Your task to perform on an android device: refresh tabs in the chrome app Image 0: 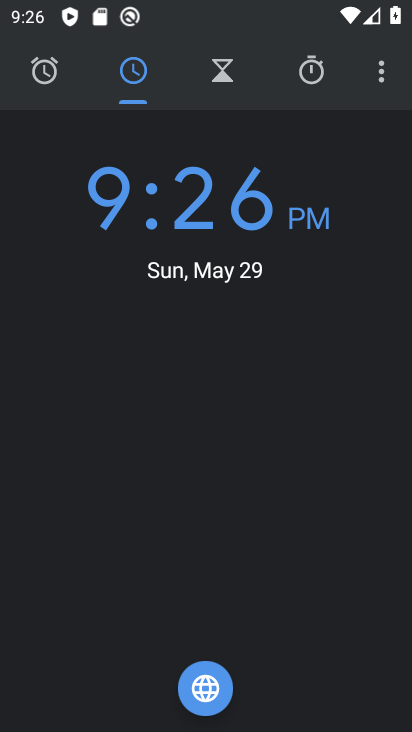
Step 0: press home button
Your task to perform on an android device: refresh tabs in the chrome app Image 1: 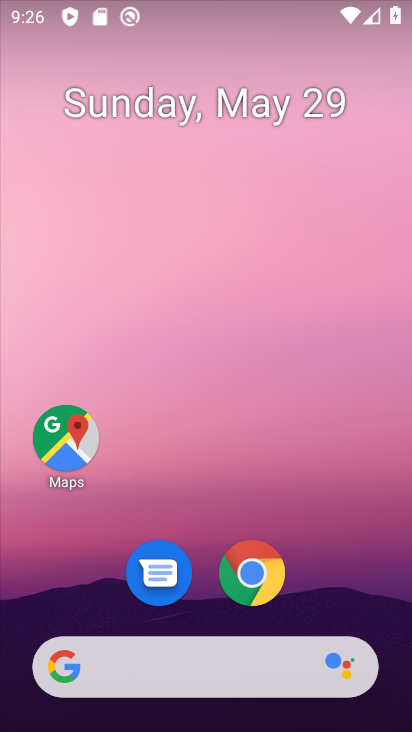
Step 1: click (272, 587)
Your task to perform on an android device: refresh tabs in the chrome app Image 2: 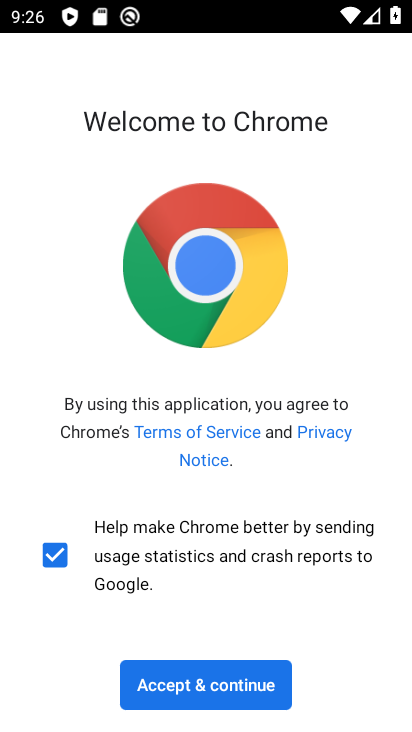
Step 2: click (250, 688)
Your task to perform on an android device: refresh tabs in the chrome app Image 3: 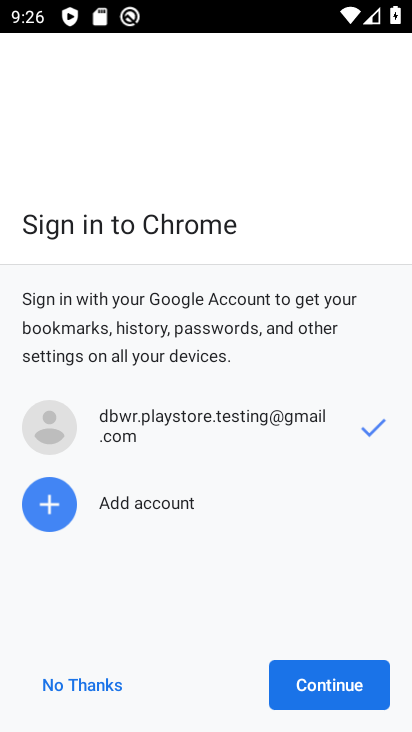
Step 3: click (317, 684)
Your task to perform on an android device: refresh tabs in the chrome app Image 4: 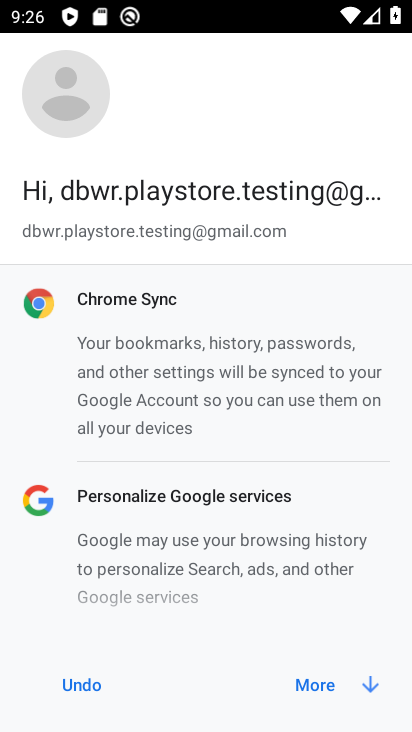
Step 4: click (318, 686)
Your task to perform on an android device: refresh tabs in the chrome app Image 5: 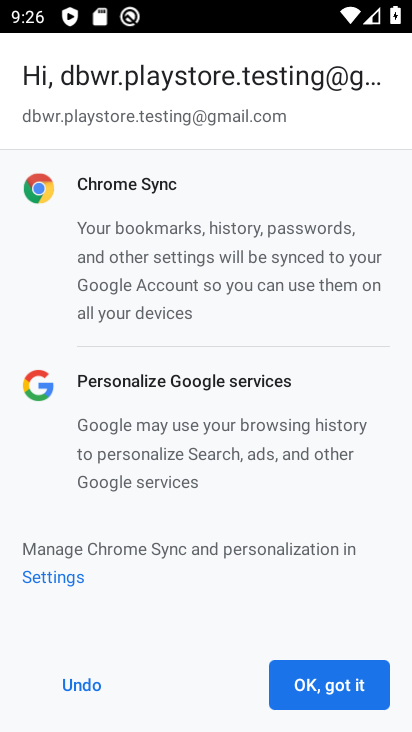
Step 5: click (340, 697)
Your task to perform on an android device: refresh tabs in the chrome app Image 6: 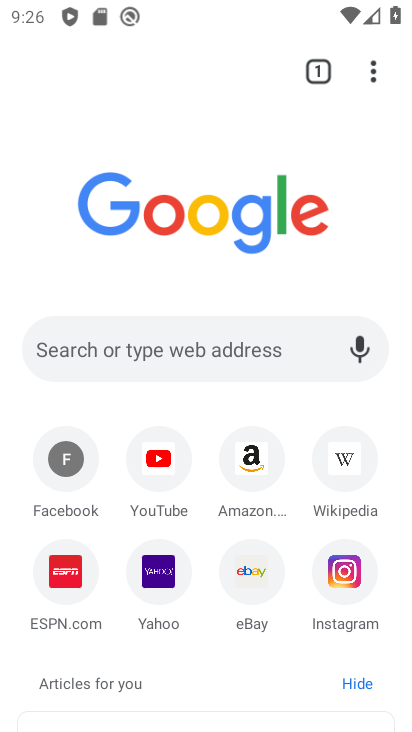
Step 6: click (369, 75)
Your task to perform on an android device: refresh tabs in the chrome app Image 7: 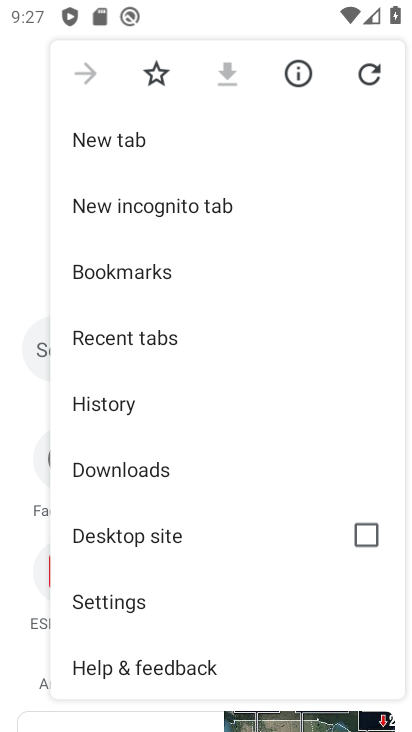
Step 7: click (369, 73)
Your task to perform on an android device: refresh tabs in the chrome app Image 8: 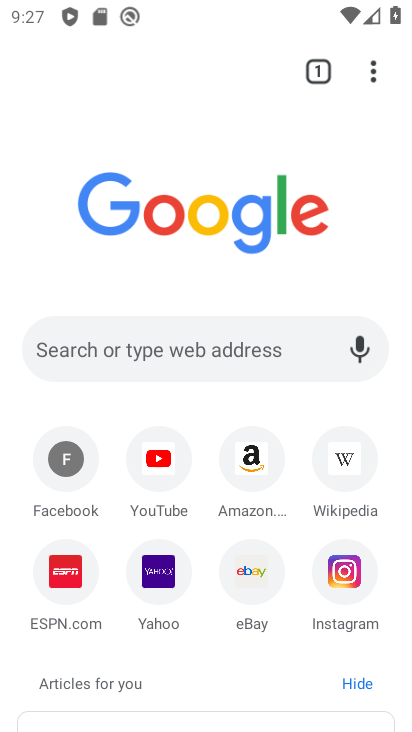
Step 8: task complete